Your task to perform on an android device: open app "Viber Messenger" (install if not already installed) Image 0: 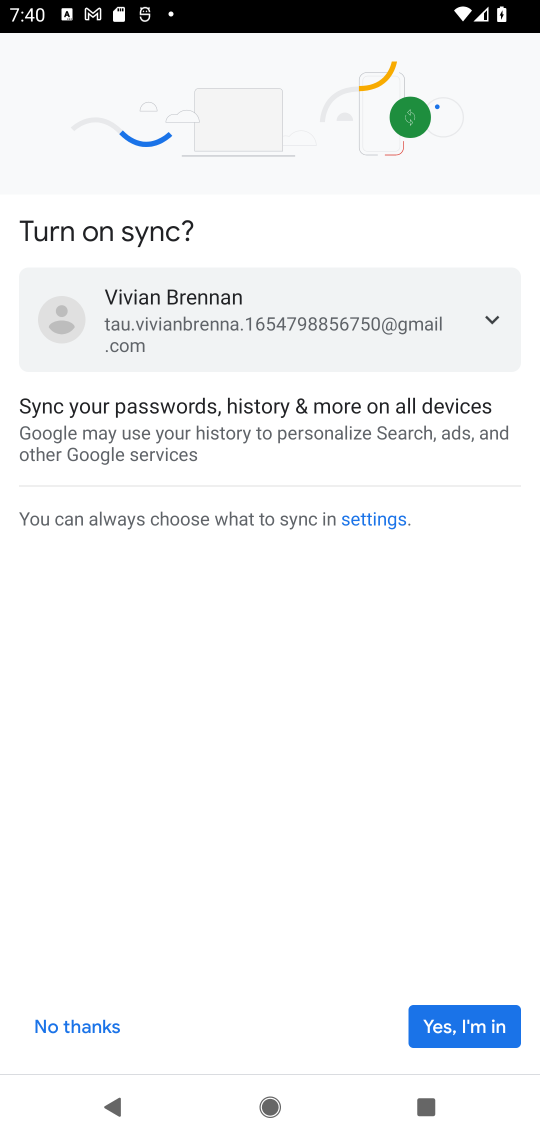
Step 0: press back button
Your task to perform on an android device: open app "Viber Messenger" (install if not already installed) Image 1: 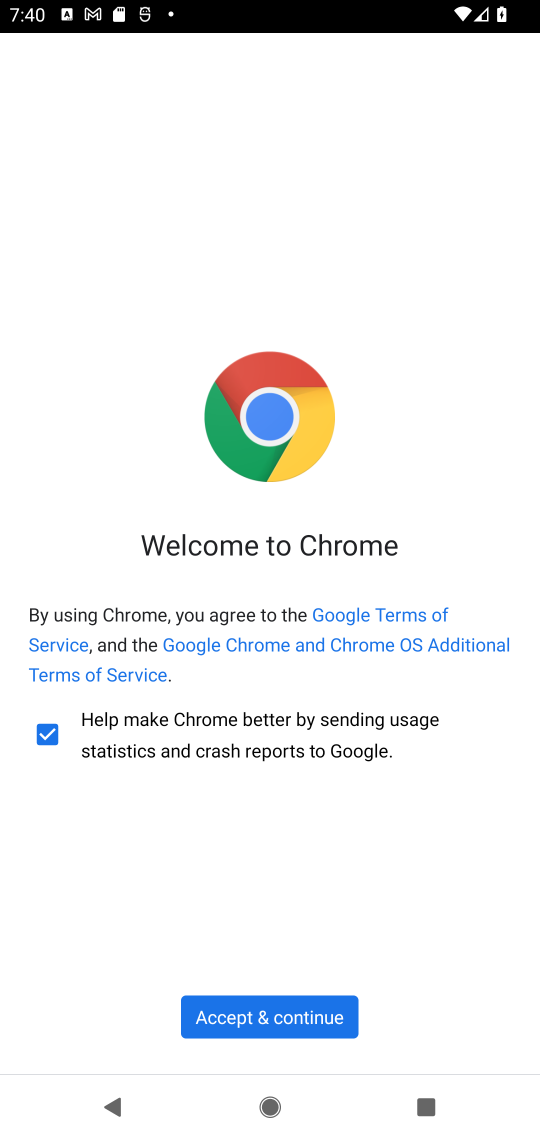
Step 1: press back button
Your task to perform on an android device: open app "Viber Messenger" (install if not already installed) Image 2: 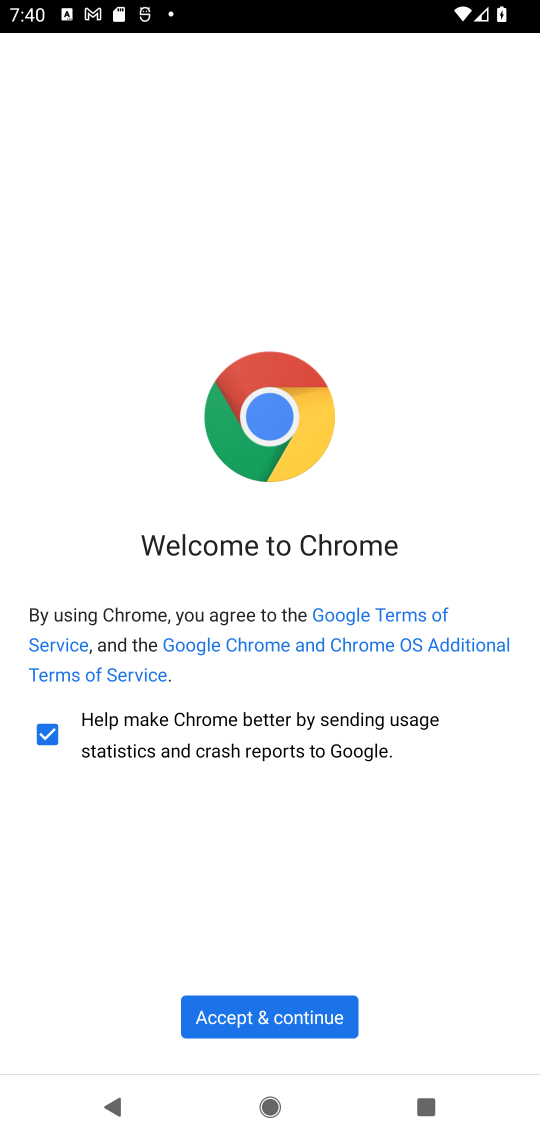
Step 2: press back button
Your task to perform on an android device: open app "Viber Messenger" (install if not already installed) Image 3: 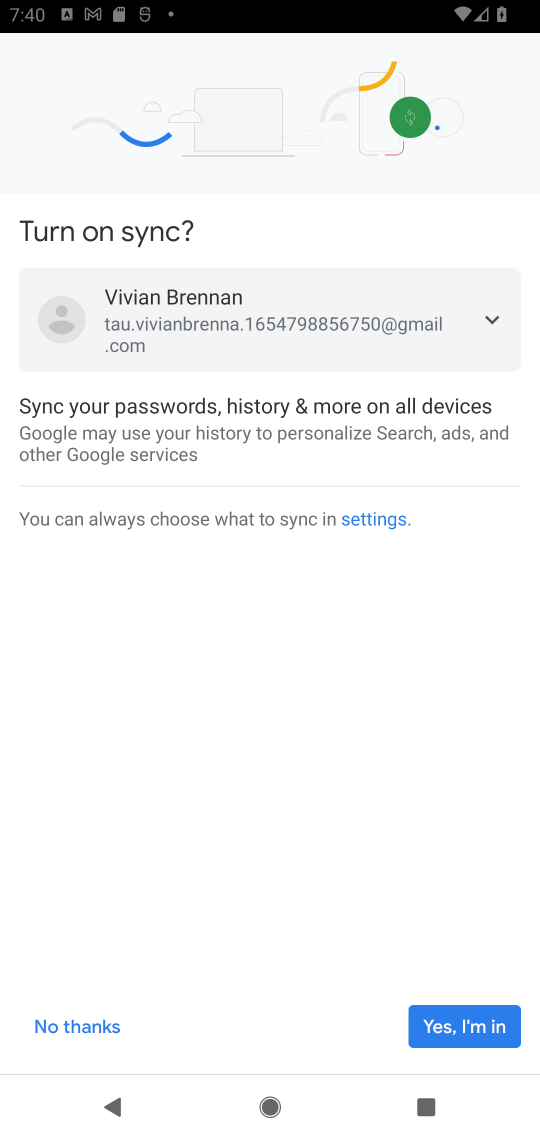
Step 3: press back button
Your task to perform on an android device: open app "Viber Messenger" (install if not already installed) Image 4: 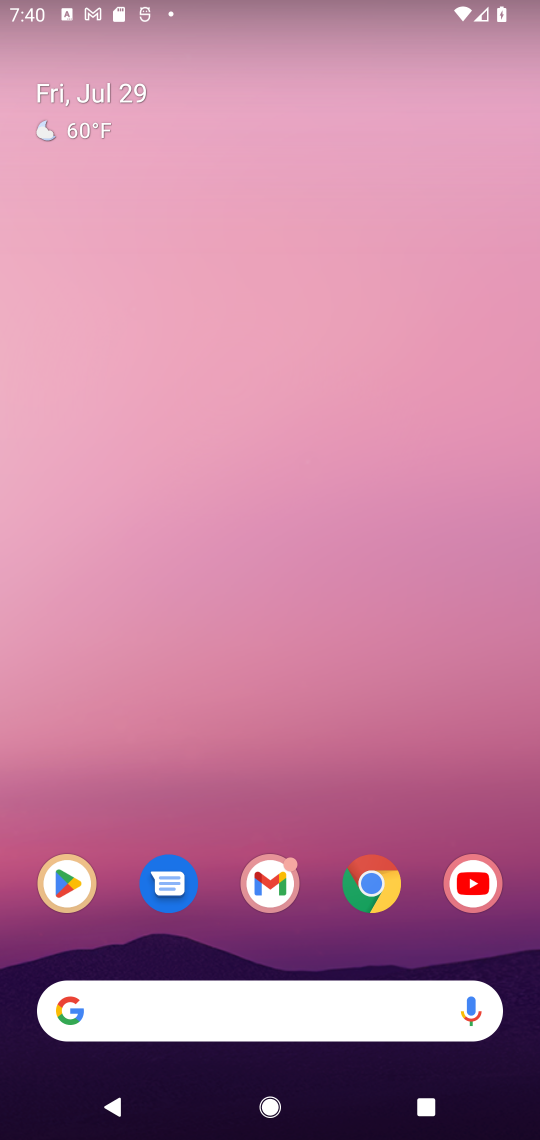
Step 4: click (63, 878)
Your task to perform on an android device: open app "Viber Messenger" (install if not already installed) Image 5: 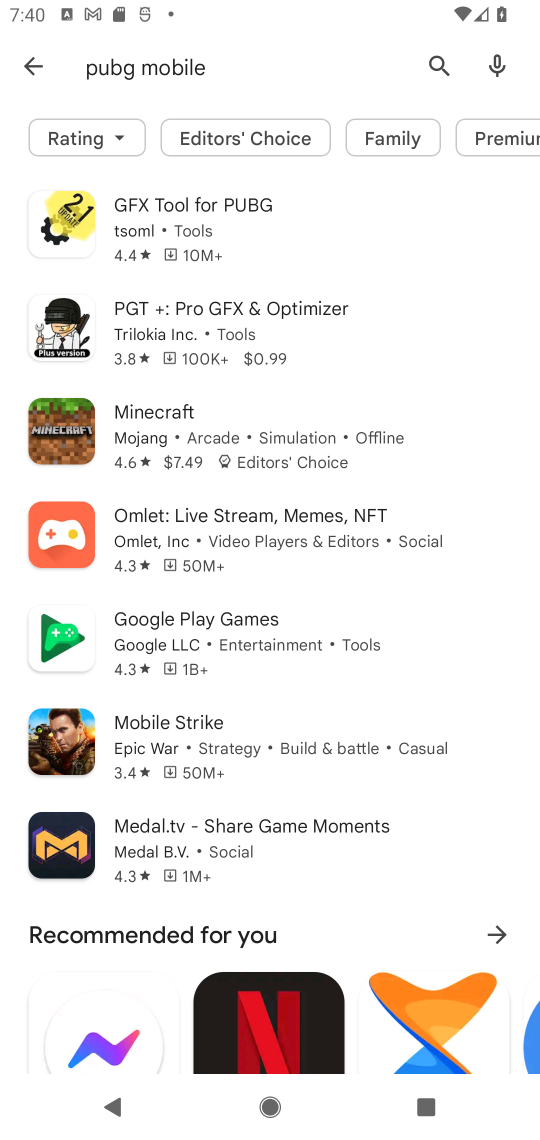
Step 5: click (427, 60)
Your task to perform on an android device: open app "Viber Messenger" (install if not already installed) Image 6: 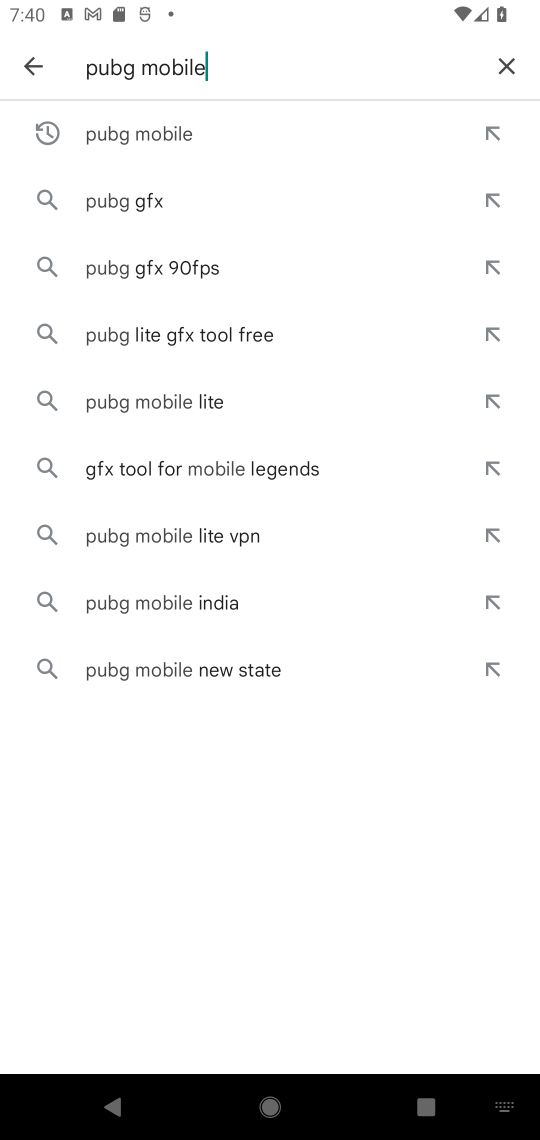
Step 6: click (504, 67)
Your task to perform on an android device: open app "Viber Messenger" (install if not already installed) Image 7: 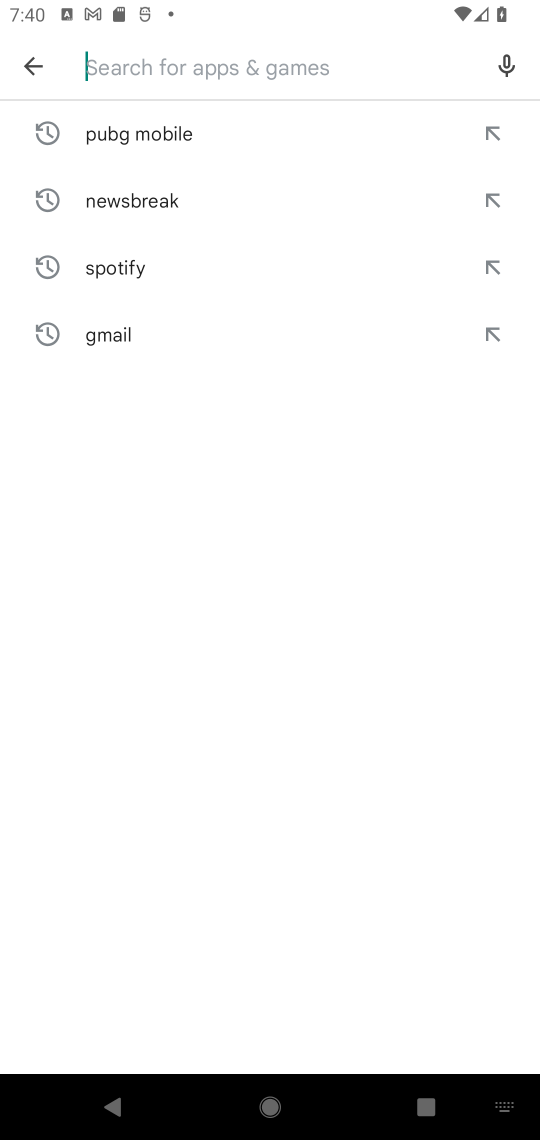
Step 7: click (154, 47)
Your task to perform on an android device: open app "Viber Messenger" (install if not already installed) Image 8: 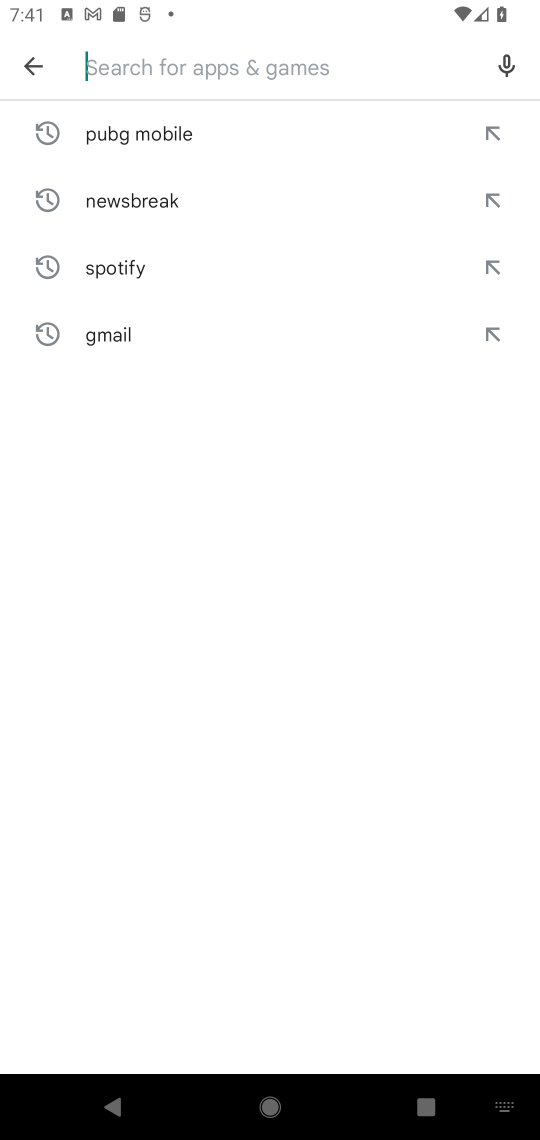
Step 8: type "viber"
Your task to perform on an android device: open app "Viber Messenger" (install if not already installed) Image 9: 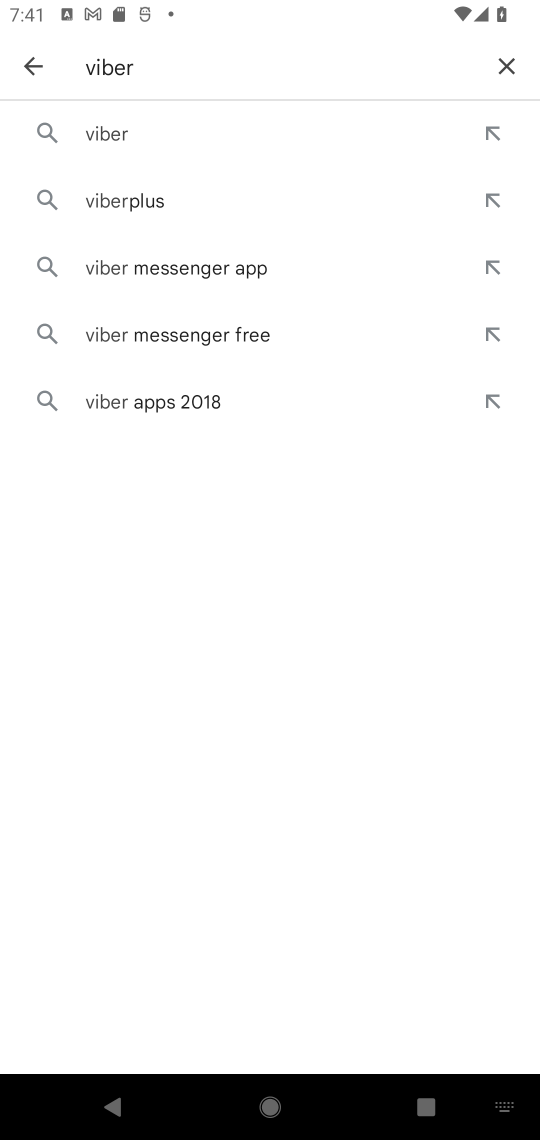
Step 9: click (160, 260)
Your task to perform on an android device: open app "Viber Messenger" (install if not already installed) Image 10: 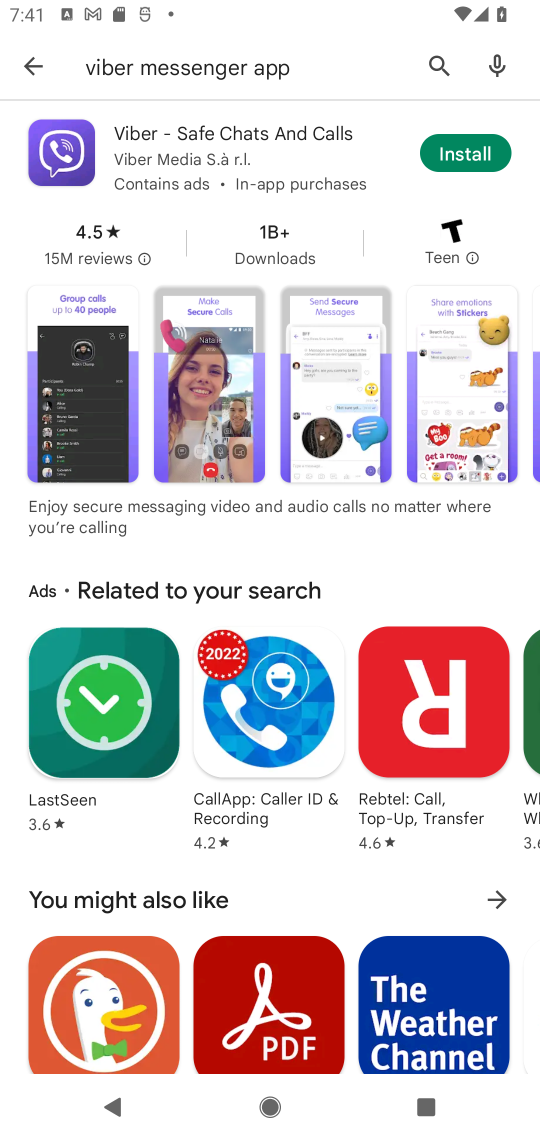
Step 10: click (460, 164)
Your task to perform on an android device: open app "Viber Messenger" (install if not already installed) Image 11: 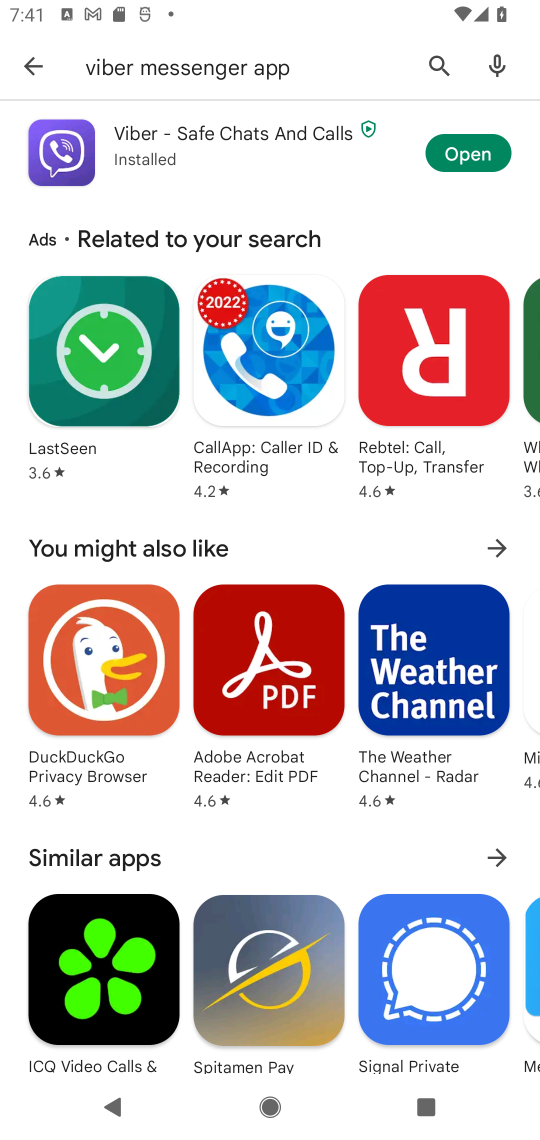
Step 11: click (451, 154)
Your task to perform on an android device: open app "Viber Messenger" (install if not already installed) Image 12: 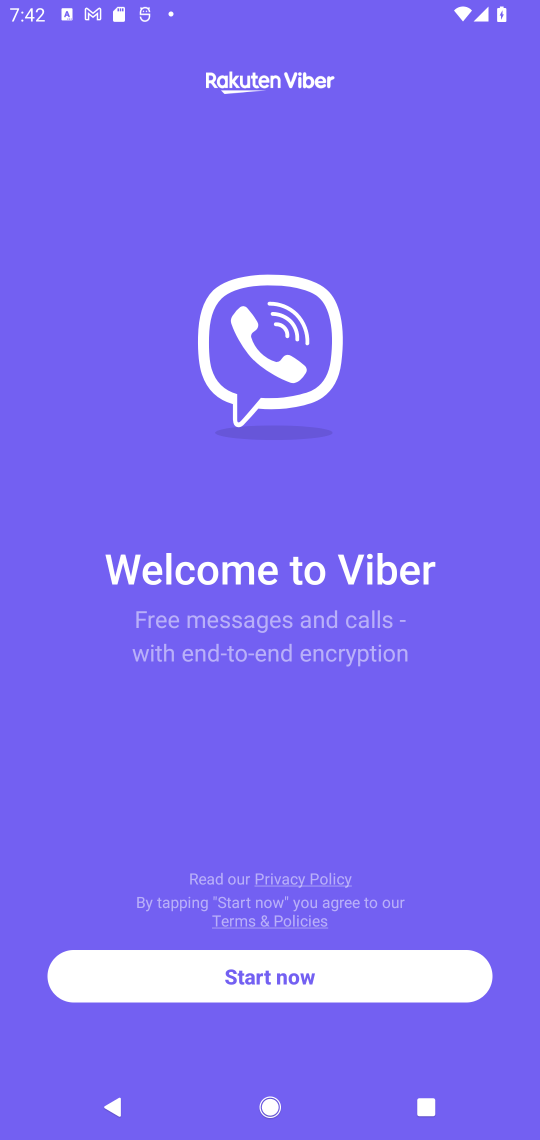
Step 12: task complete